Your task to perform on an android device: turn on notifications settings in the gmail app Image 0: 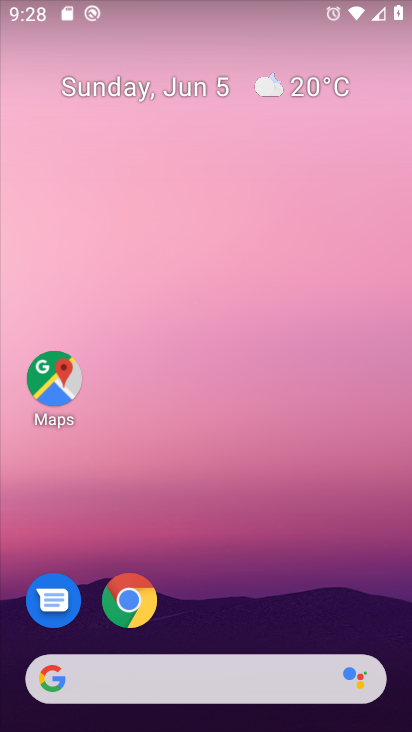
Step 0: drag from (225, 583) to (240, 19)
Your task to perform on an android device: turn on notifications settings in the gmail app Image 1: 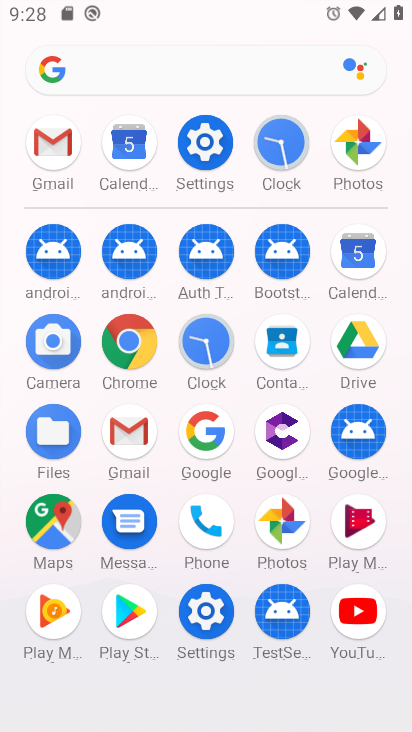
Step 1: click (59, 149)
Your task to perform on an android device: turn on notifications settings in the gmail app Image 2: 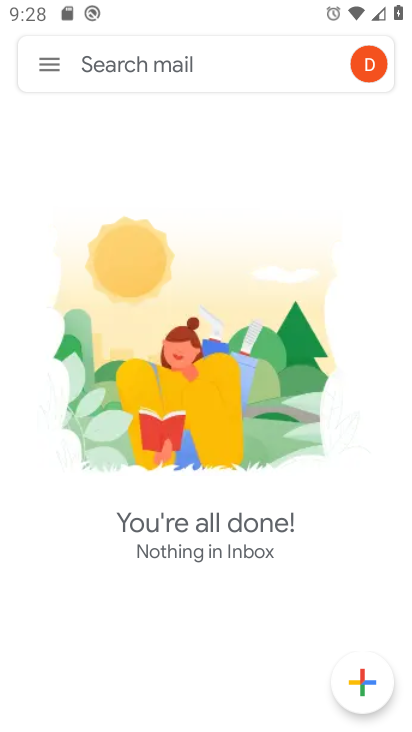
Step 2: click (48, 67)
Your task to perform on an android device: turn on notifications settings in the gmail app Image 3: 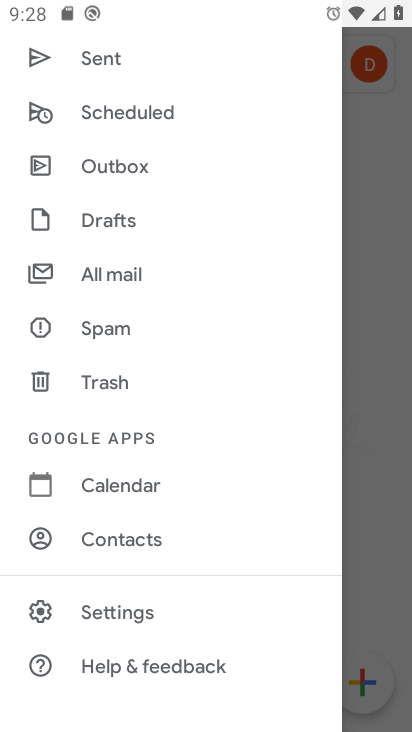
Step 3: click (124, 603)
Your task to perform on an android device: turn on notifications settings in the gmail app Image 4: 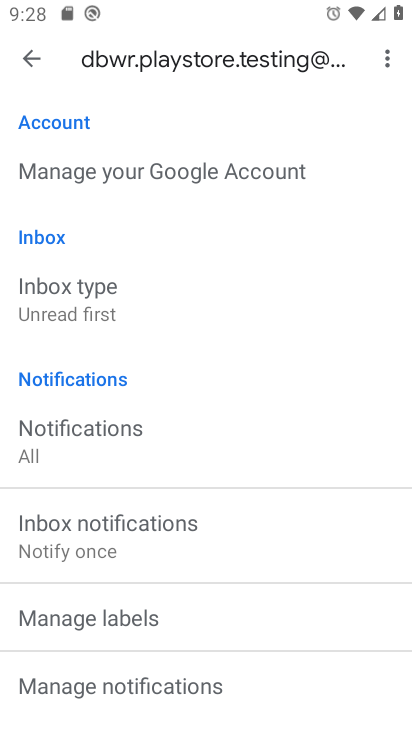
Step 4: click (224, 648)
Your task to perform on an android device: turn on notifications settings in the gmail app Image 5: 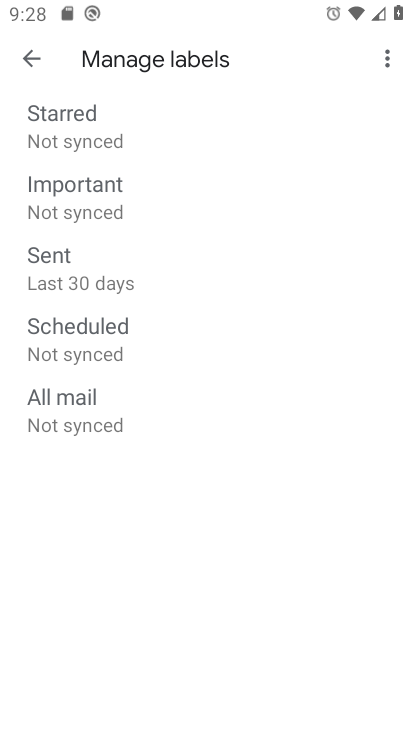
Step 5: click (27, 51)
Your task to perform on an android device: turn on notifications settings in the gmail app Image 6: 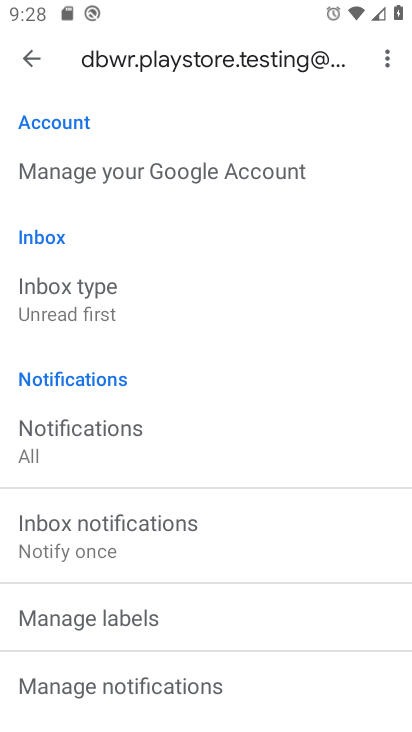
Step 6: click (208, 672)
Your task to perform on an android device: turn on notifications settings in the gmail app Image 7: 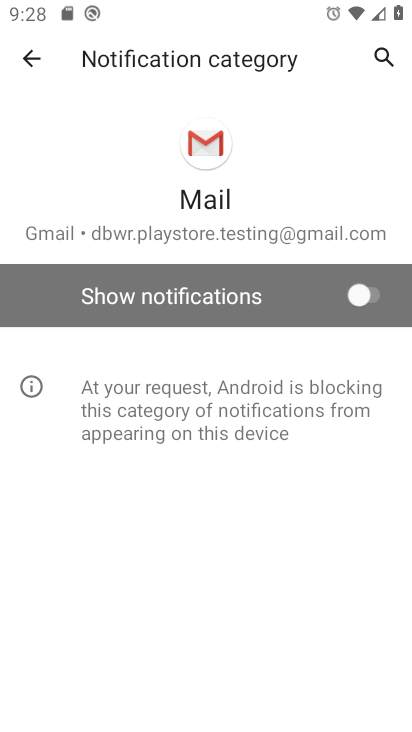
Step 7: click (372, 295)
Your task to perform on an android device: turn on notifications settings in the gmail app Image 8: 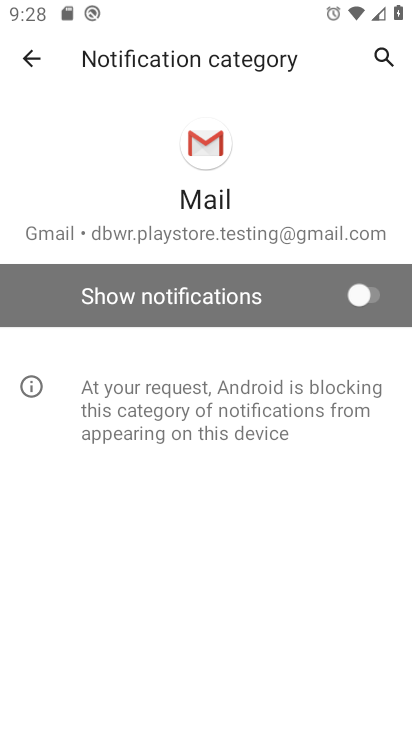
Step 8: click (370, 295)
Your task to perform on an android device: turn on notifications settings in the gmail app Image 9: 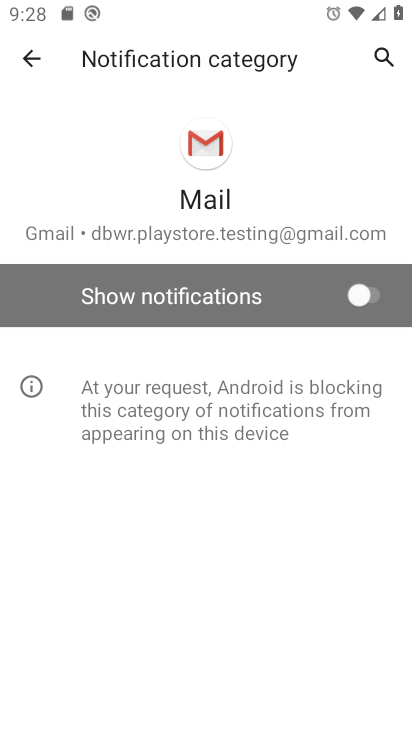
Step 9: click (26, 43)
Your task to perform on an android device: turn on notifications settings in the gmail app Image 10: 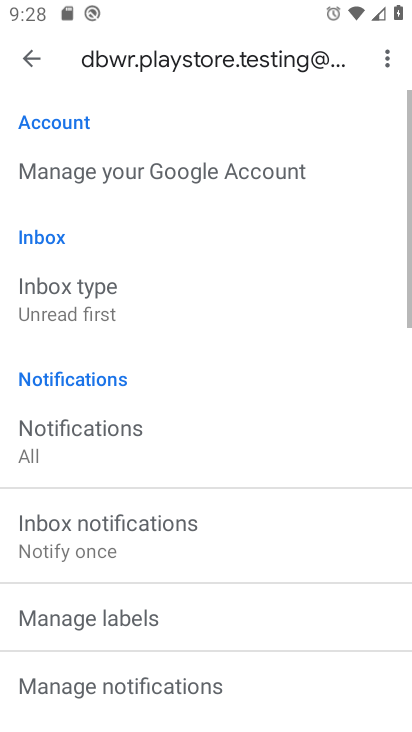
Step 10: click (31, 58)
Your task to perform on an android device: turn on notifications settings in the gmail app Image 11: 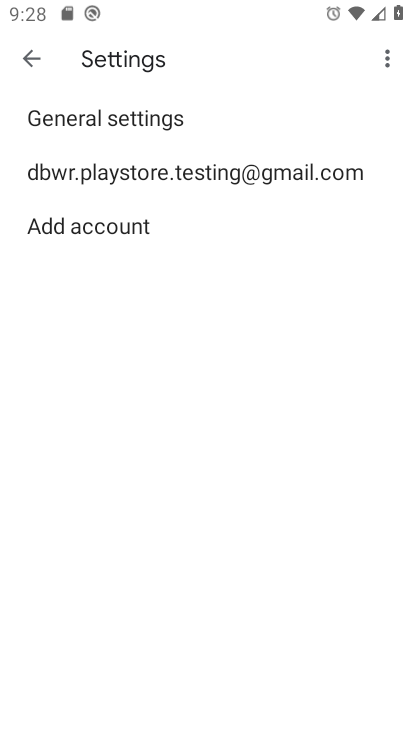
Step 11: click (77, 115)
Your task to perform on an android device: turn on notifications settings in the gmail app Image 12: 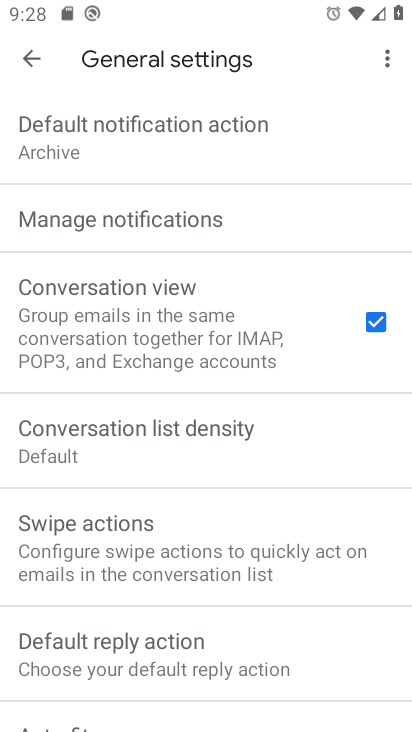
Step 12: click (246, 218)
Your task to perform on an android device: turn on notifications settings in the gmail app Image 13: 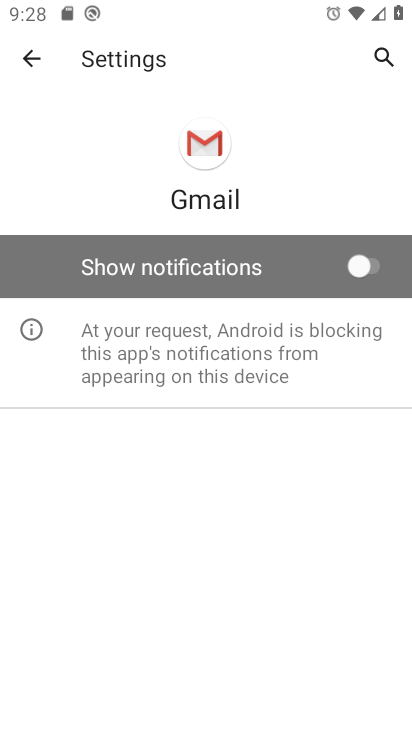
Step 13: click (359, 264)
Your task to perform on an android device: turn on notifications settings in the gmail app Image 14: 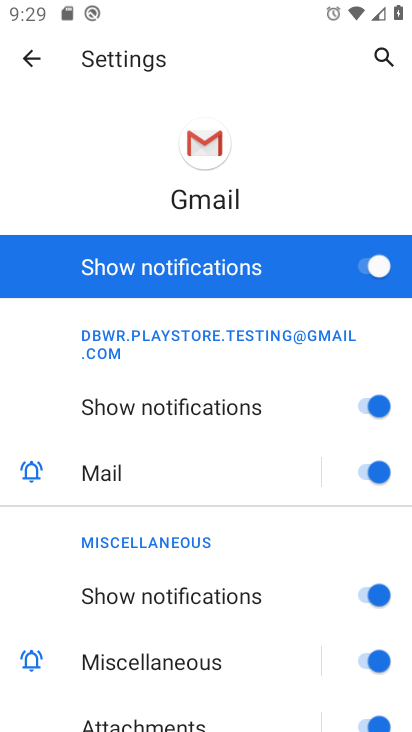
Step 14: task complete